Your task to perform on an android device: open app "PlayWell" (install if not already installed) Image 0: 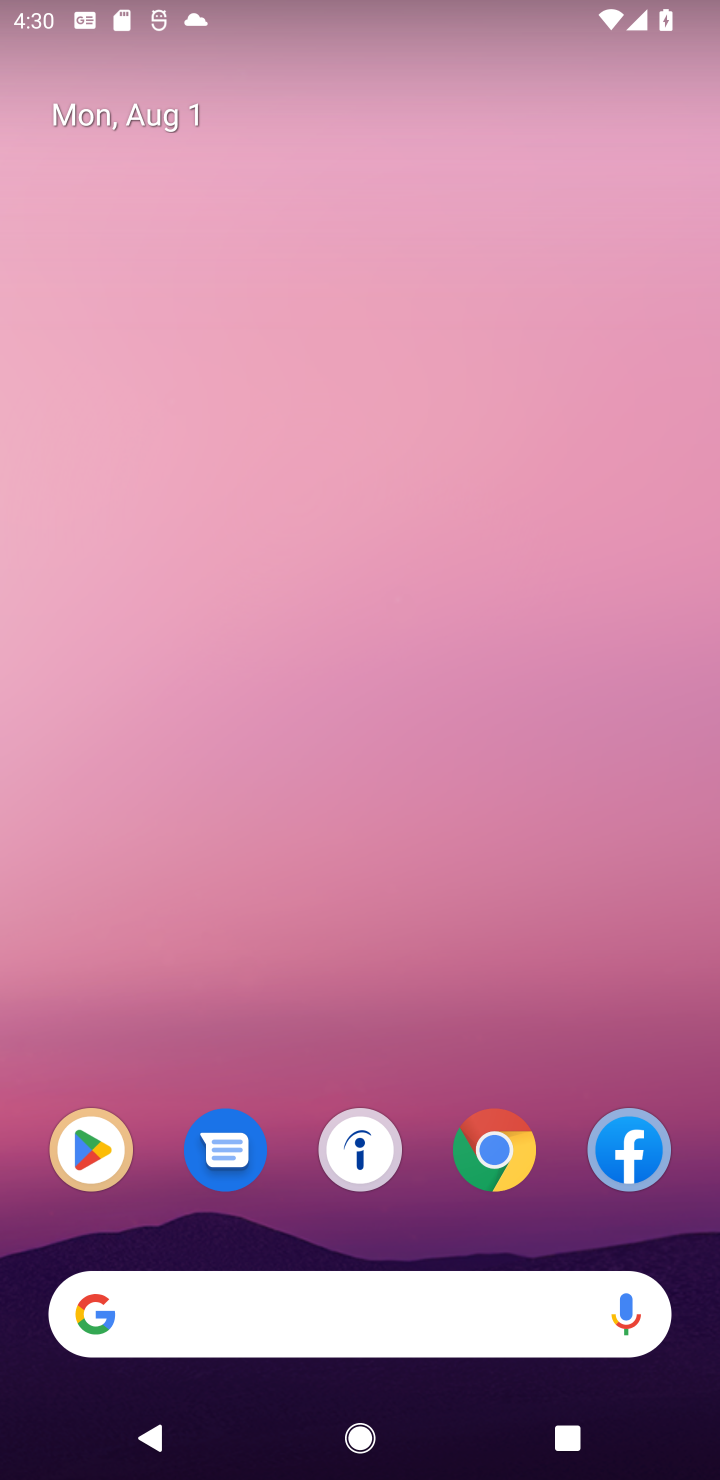
Step 0: click (71, 1176)
Your task to perform on an android device: open app "PlayWell" (install if not already installed) Image 1: 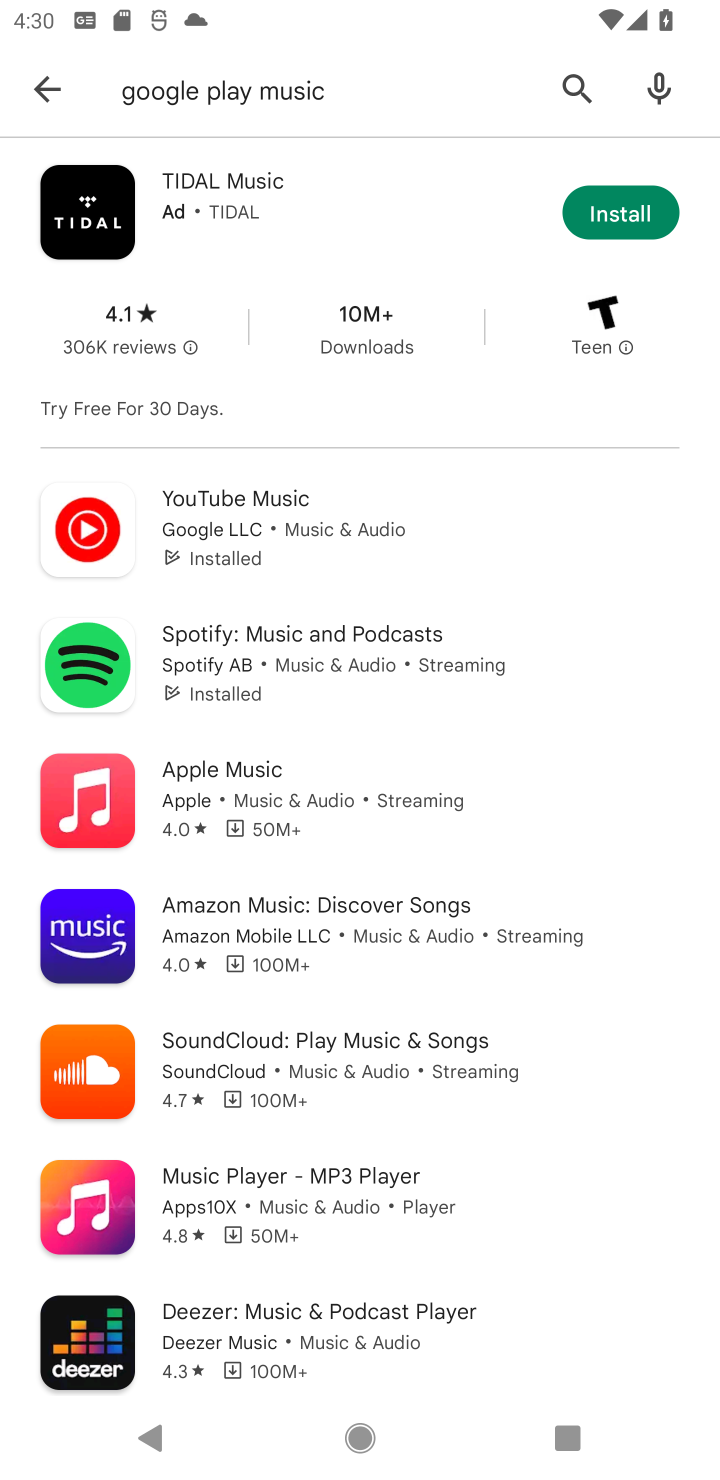
Step 1: click (560, 93)
Your task to perform on an android device: open app "PlayWell" (install if not already installed) Image 2: 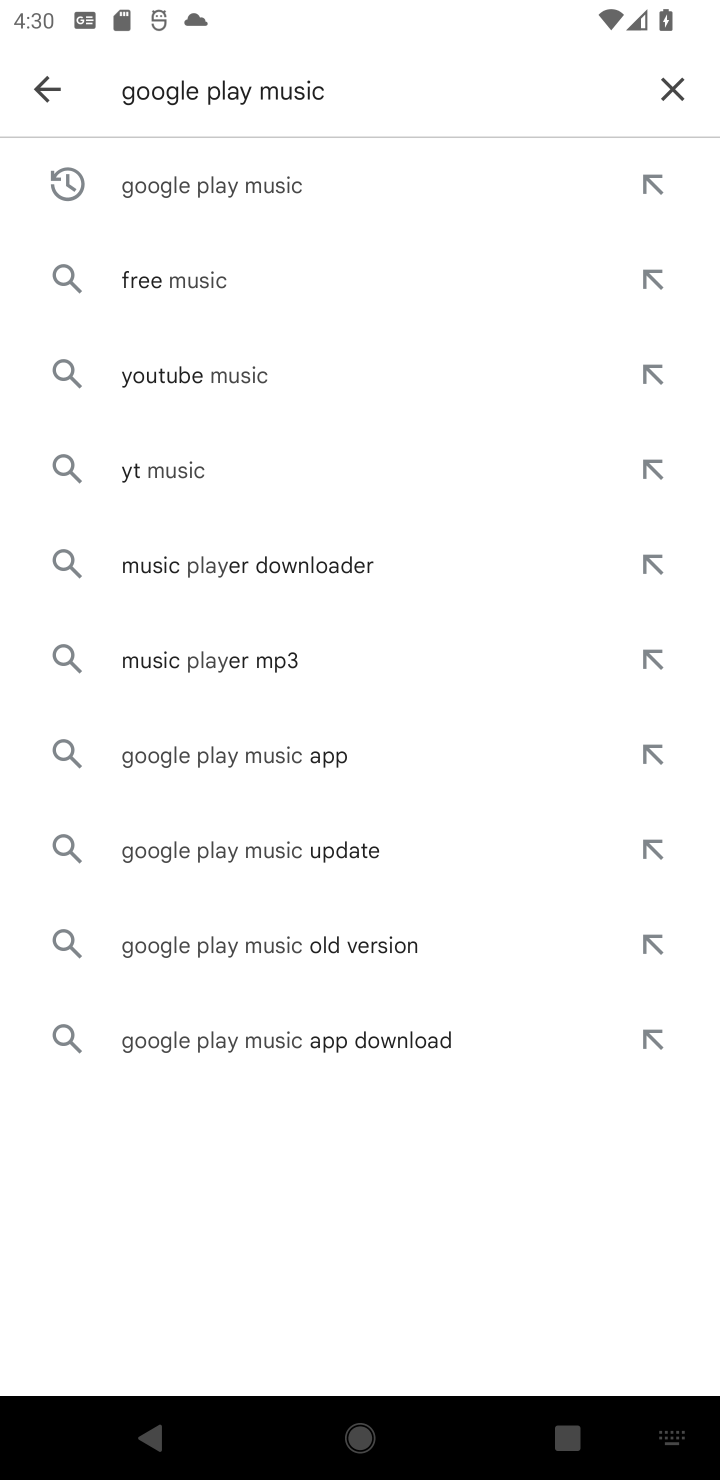
Step 2: click (697, 99)
Your task to perform on an android device: open app "PlayWell" (install if not already installed) Image 3: 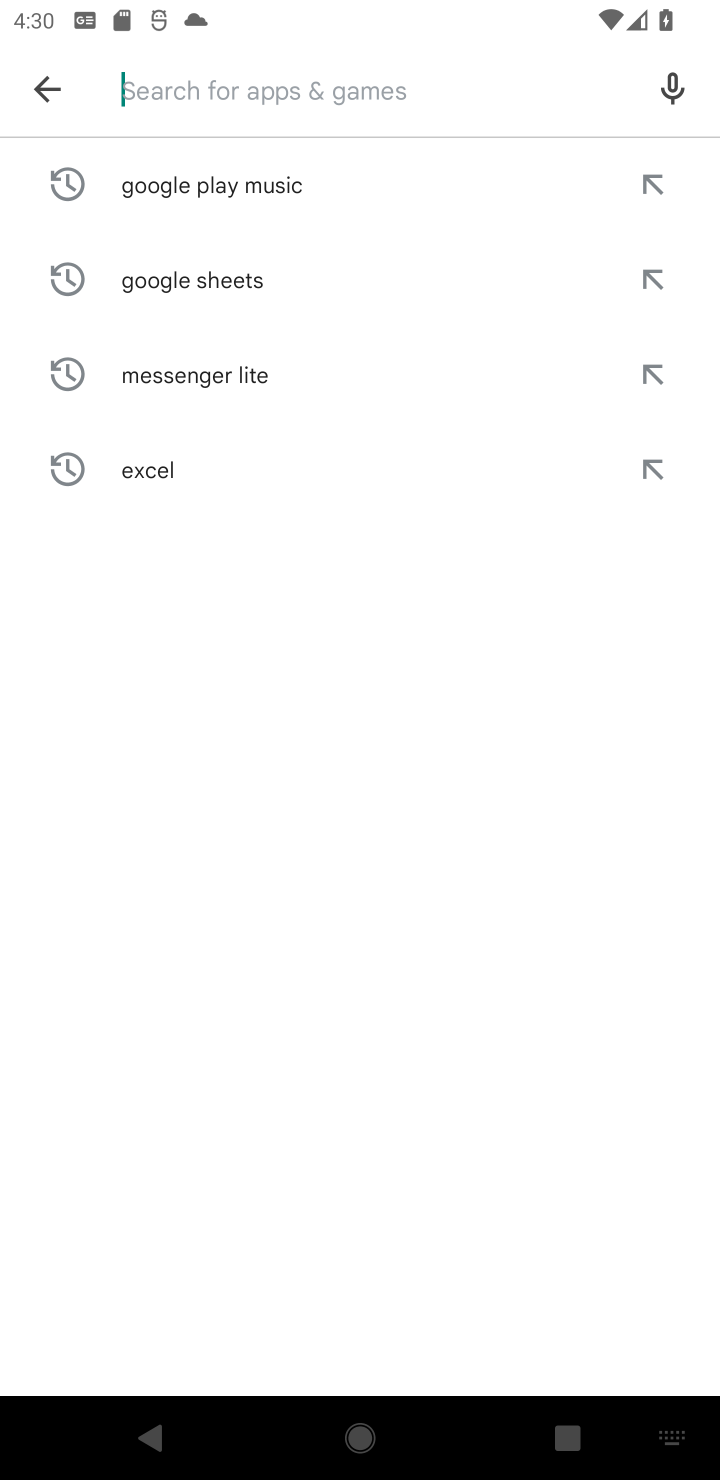
Step 3: type "palywell"
Your task to perform on an android device: open app "PlayWell" (install if not already installed) Image 4: 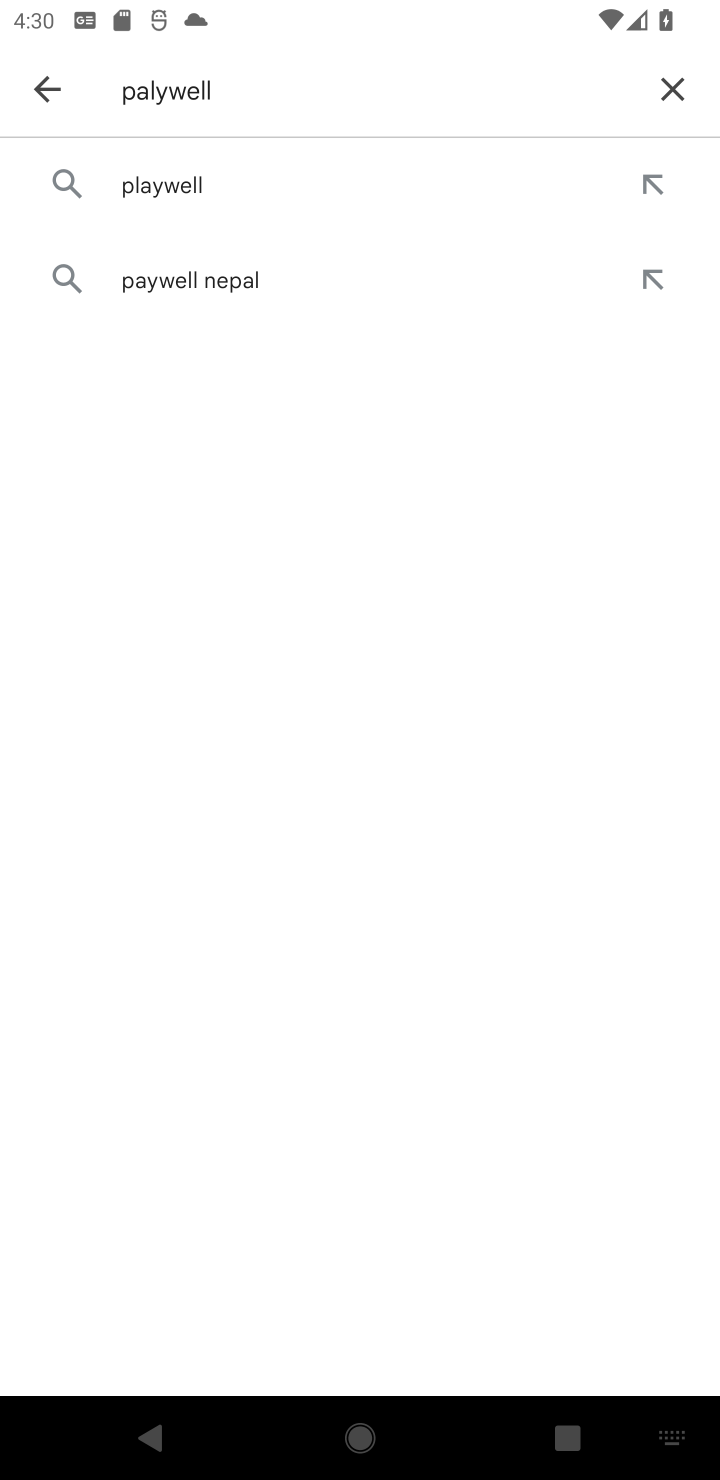
Step 4: click (419, 183)
Your task to perform on an android device: open app "PlayWell" (install if not already installed) Image 5: 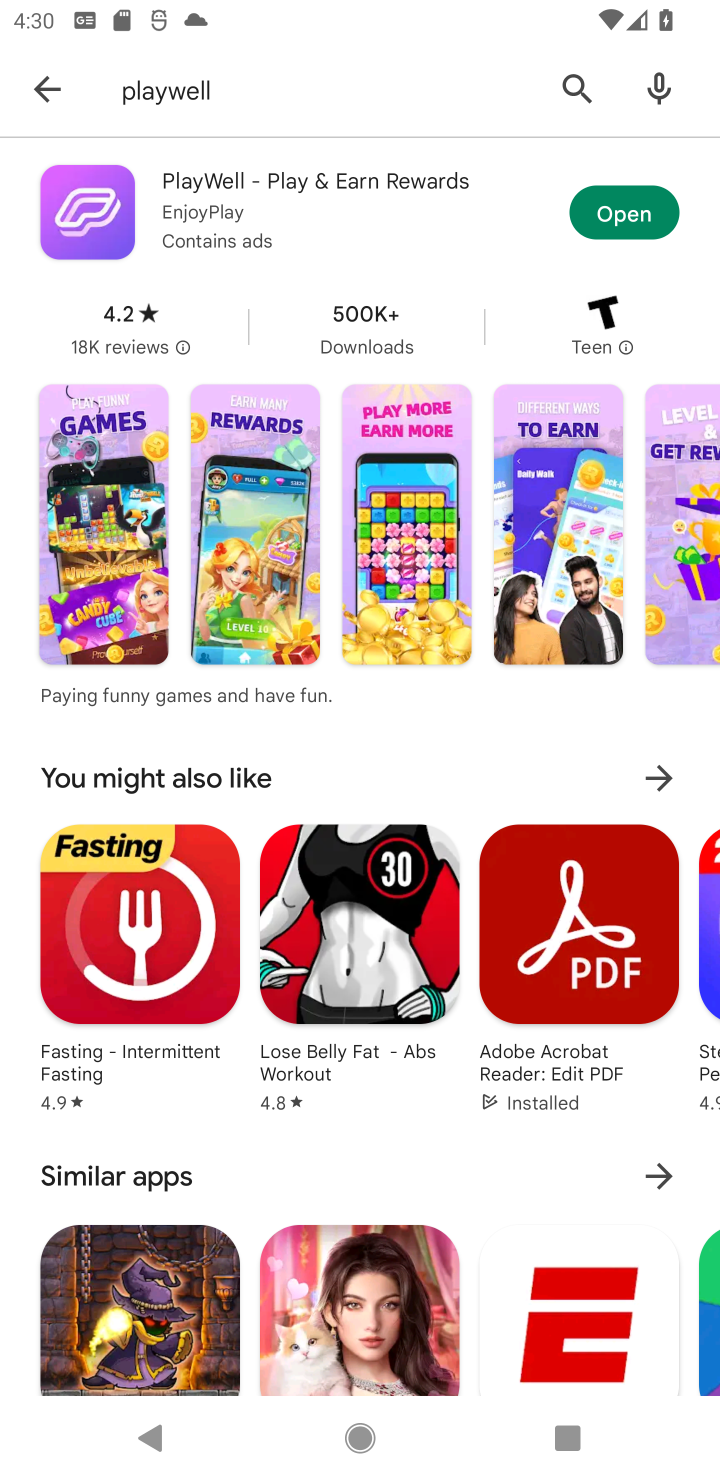
Step 5: click (642, 231)
Your task to perform on an android device: open app "PlayWell" (install if not already installed) Image 6: 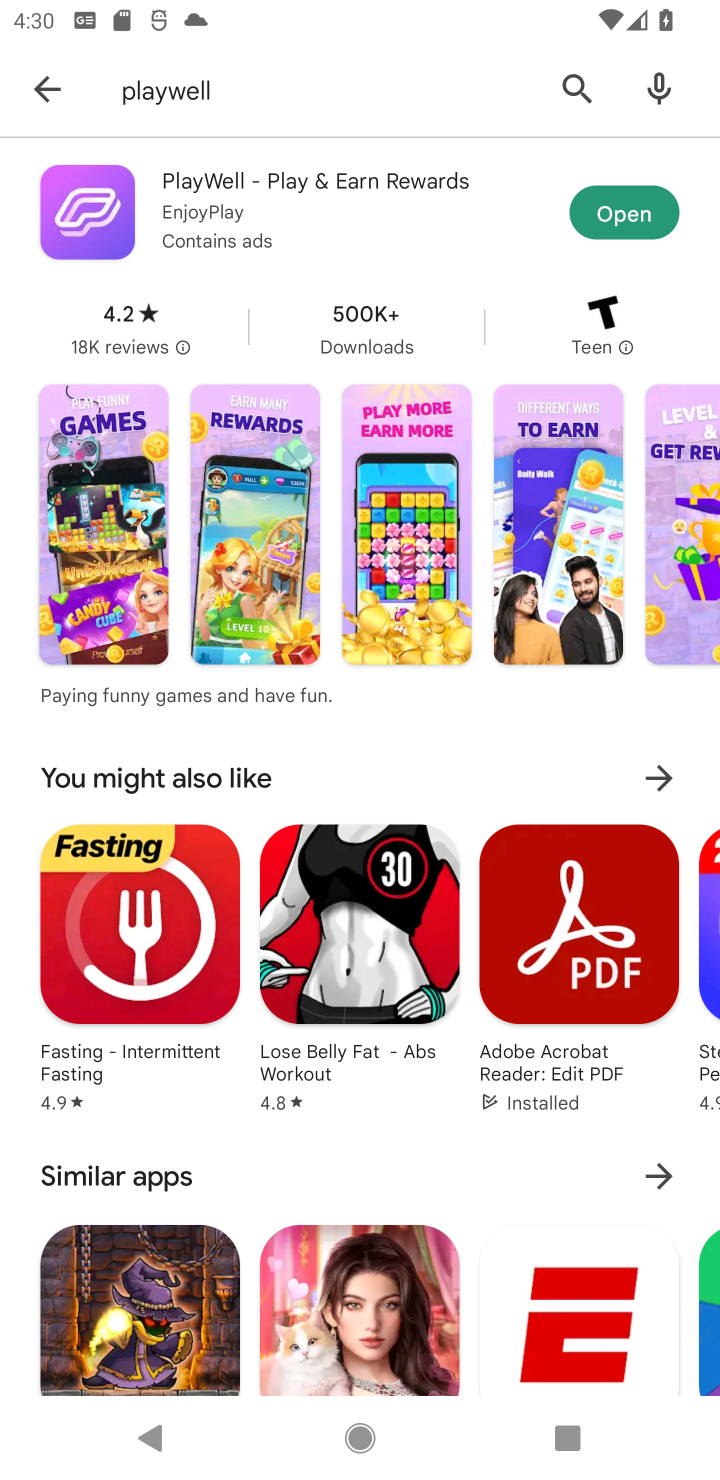
Step 6: task complete